Your task to perform on an android device: turn off priority inbox in the gmail app Image 0: 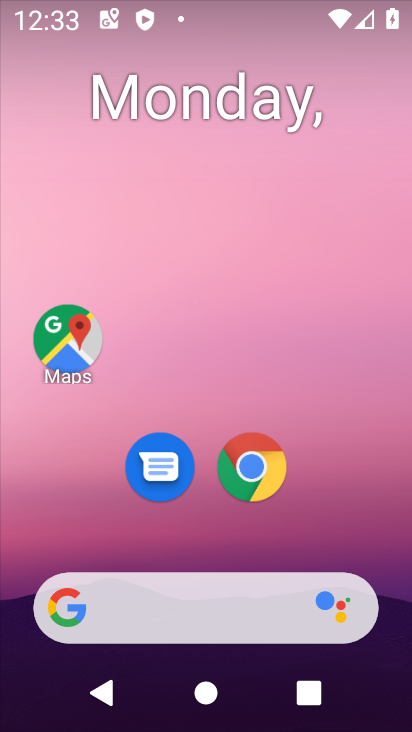
Step 0: drag from (387, 592) to (343, 149)
Your task to perform on an android device: turn off priority inbox in the gmail app Image 1: 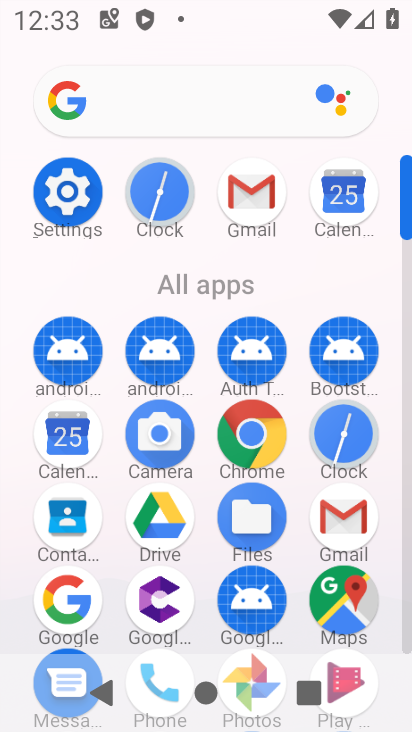
Step 1: click (407, 636)
Your task to perform on an android device: turn off priority inbox in the gmail app Image 2: 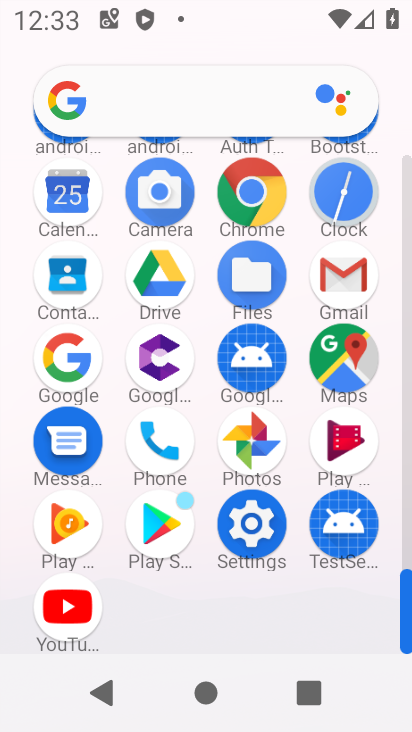
Step 2: click (346, 280)
Your task to perform on an android device: turn off priority inbox in the gmail app Image 3: 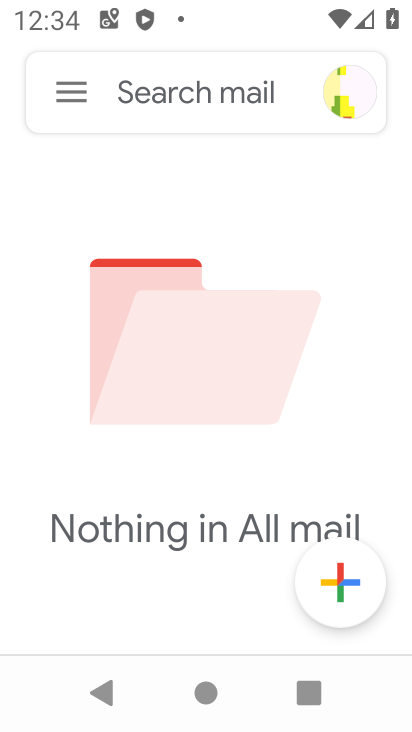
Step 3: click (69, 94)
Your task to perform on an android device: turn off priority inbox in the gmail app Image 4: 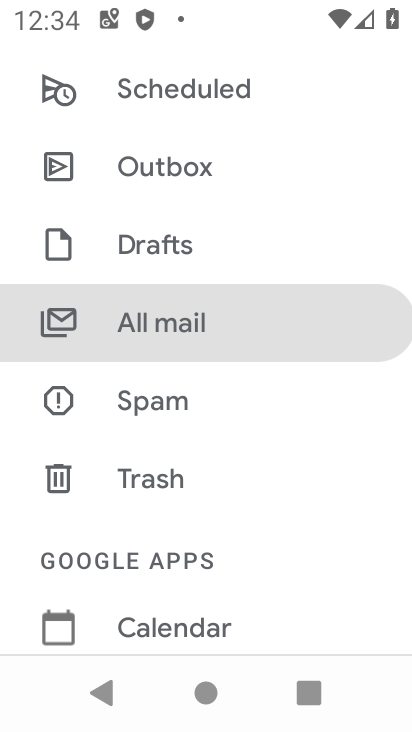
Step 4: drag from (219, 545) to (269, 145)
Your task to perform on an android device: turn off priority inbox in the gmail app Image 5: 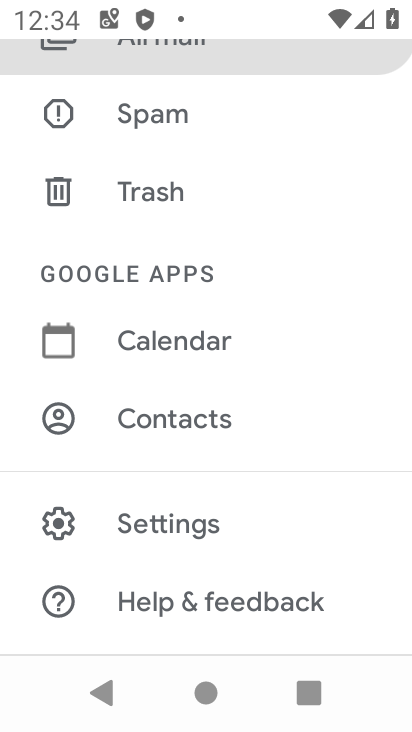
Step 5: click (168, 521)
Your task to perform on an android device: turn off priority inbox in the gmail app Image 6: 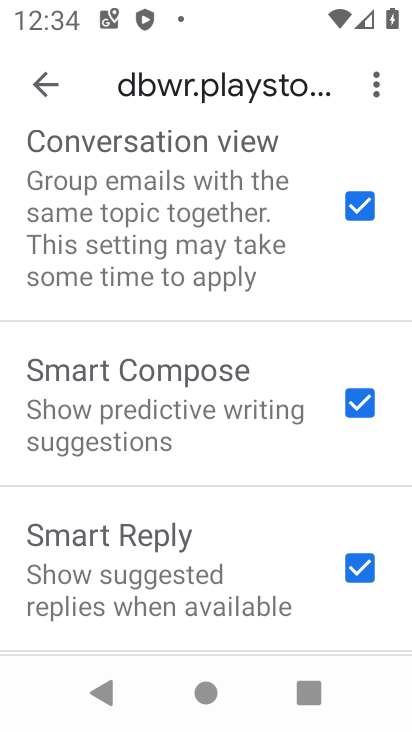
Step 6: drag from (283, 577) to (248, 141)
Your task to perform on an android device: turn off priority inbox in the gmail app Image 7: 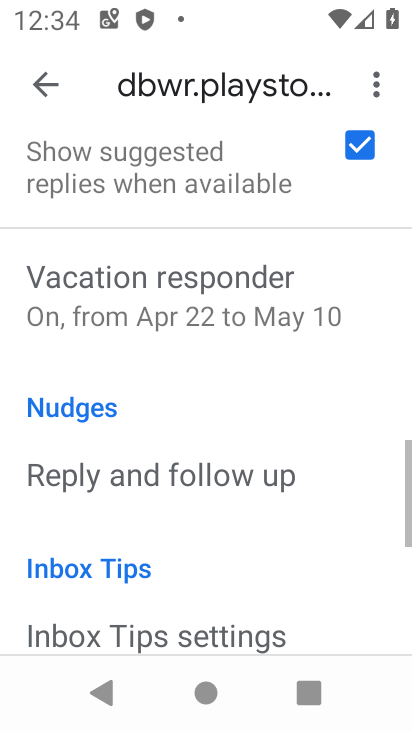
Step 7: drag from (248, 141) to (234, 491)
Your task to perform on an android device: turn off priority inbox in the gmail app Image 8: 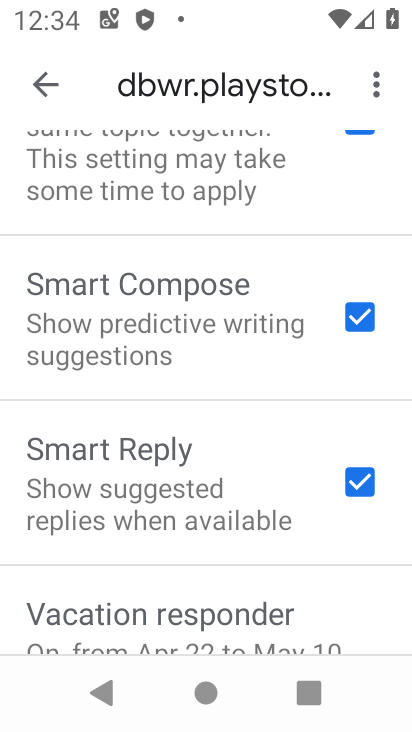
Step 8: drag from (255, 263) to (246, 565)
Your task to perform on an android device: turn off priority inbox in the gmail app Image 9: 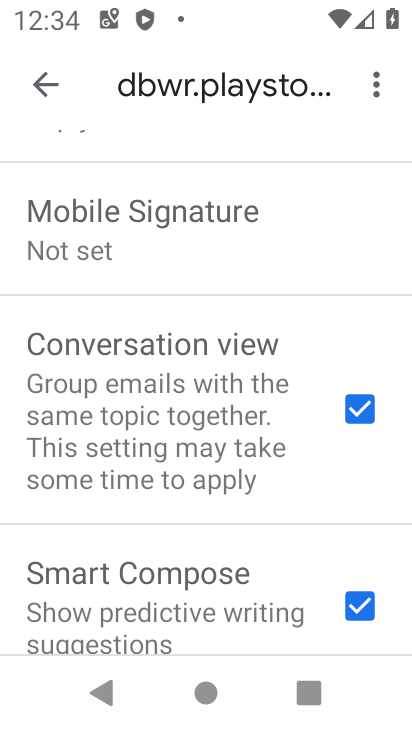
Step 9: drag from (275, 207) to (262, 537)
Your task to perform on an android device: turn off priority inbox in the gmail app Image 10: 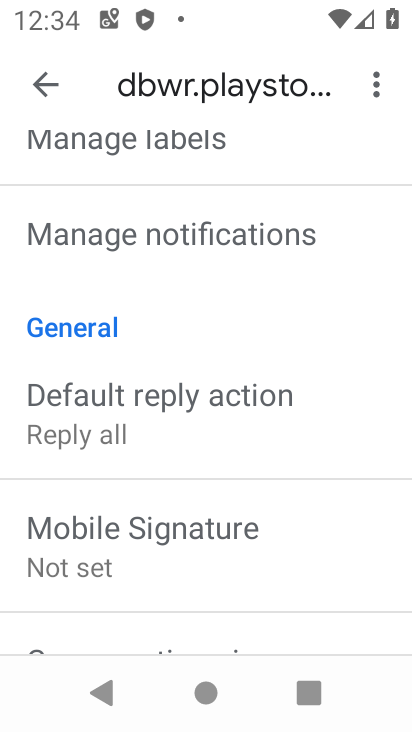
Step 10: drag from (283, 345) to (226, 634)
Your task to perform on an android device: turn off priority inbox in the gmail app Image 11: 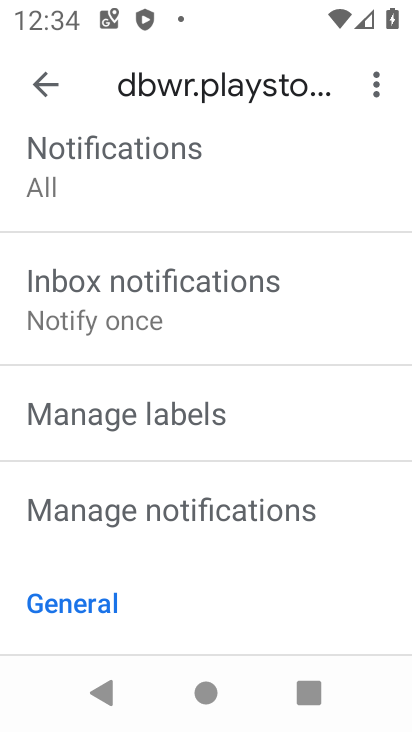
Step 11: drag from (281, 250) to (268, 520)
Your task to perform on an android device: turn off priority inbox in the gmail app Image 12: 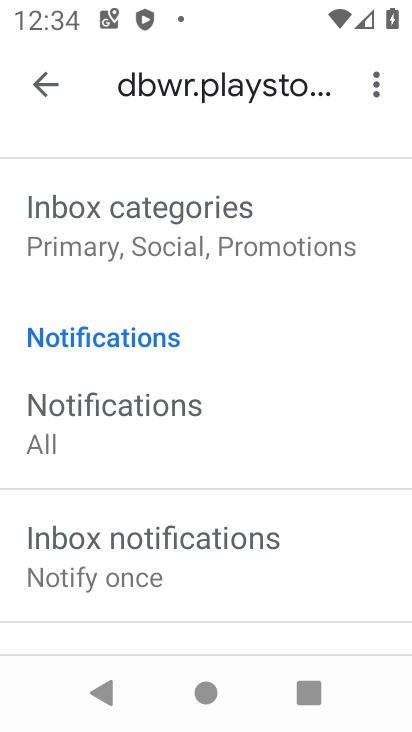
Step 12: click (134, 230)
Your task to perform on an android device: turn off priority inbox in the gmail app Image 13: 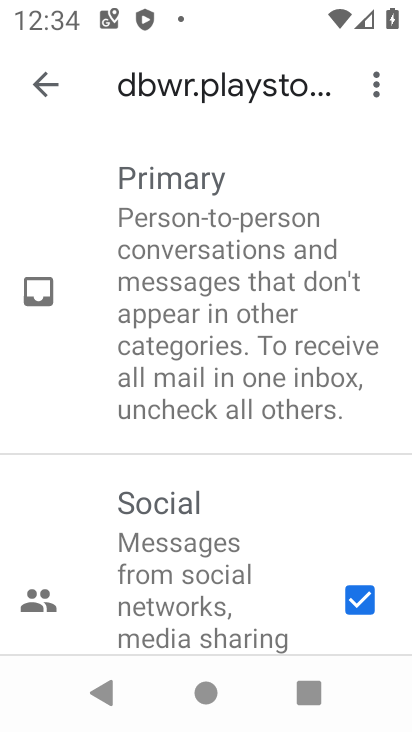
Step 13: press back button
Your task to perform on an android device: turn off priority inbox in the gmail app Image 14: 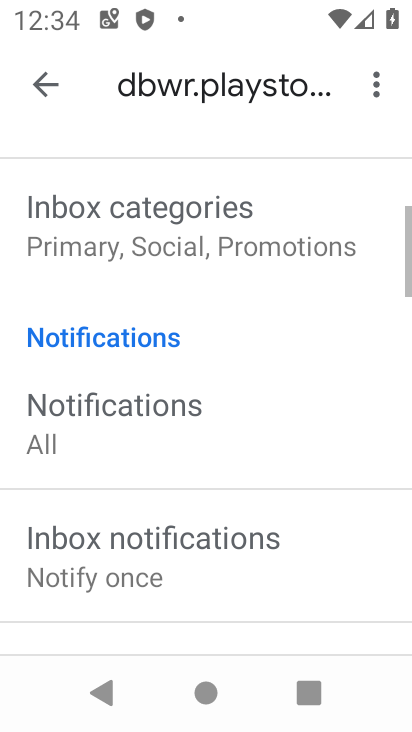
Step 14: drag from (259, 237) to (260, 592)
Your task to perform on an android device: turn off priority inbox in the gmail app Image 15: 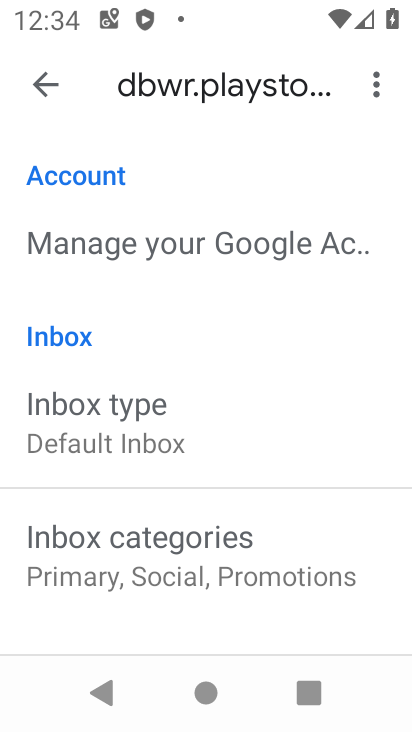
Step 15: click (98, 429)
Your task to perform on an android device: turn off priority inbox in the gmail app Image 16: 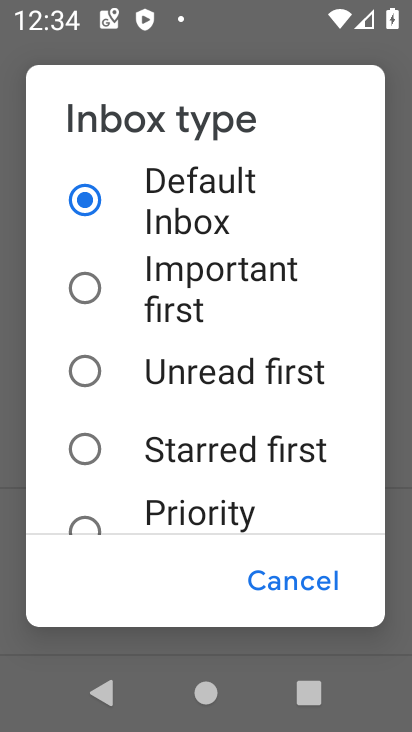
Step 16: task complete